Your task to perform on an android device: What's the weather today? Image 0: 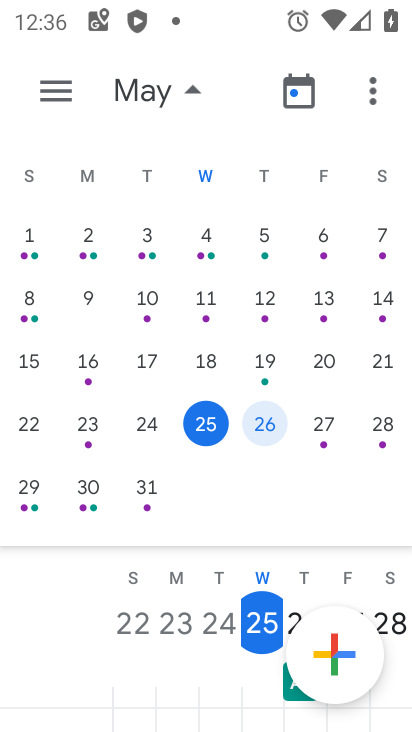
Step 0: press home button
Your task to perform on an android device: What's the weather today? Image 1: 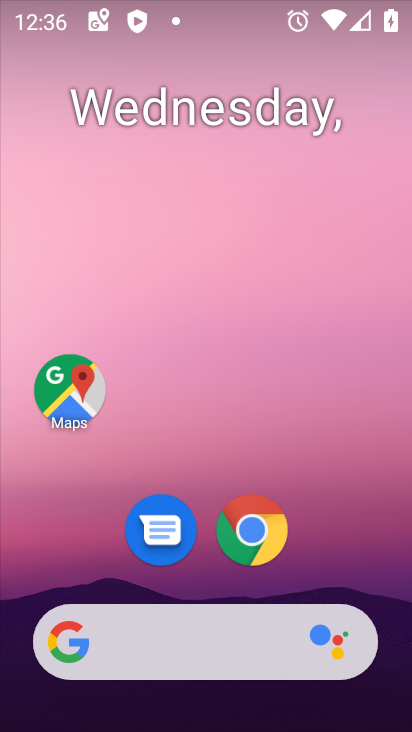
Step 1: click (247, 535)
Your task to perform on an android device: What's the weather today? Image 2: 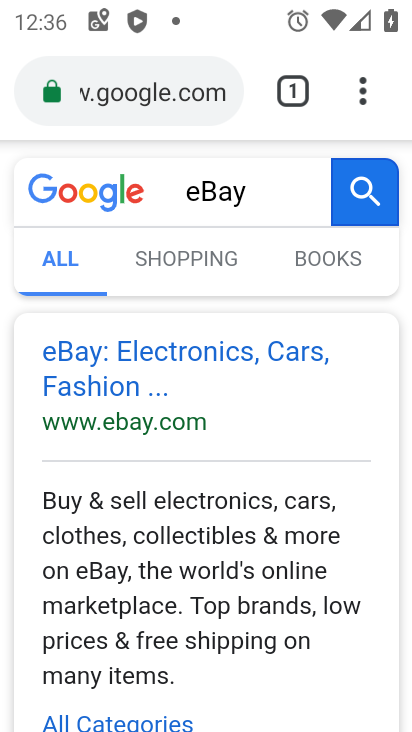
Step 2: click (171, 98)
Your task to perform on an android device: What's the weather today? Image 3: 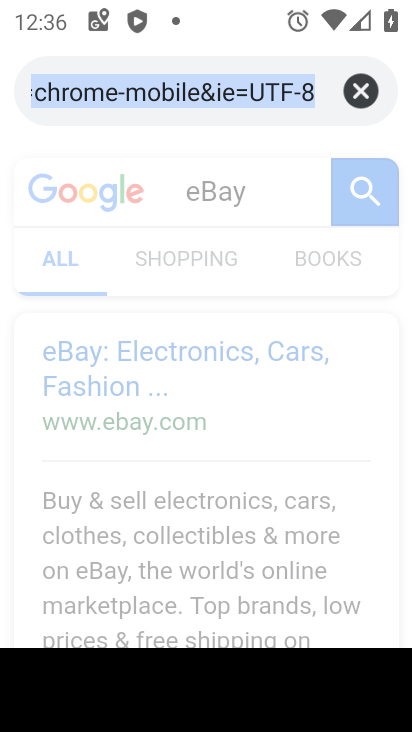
Step 3: type "weather today"
Your task to perform on an android device: What's the weather today? Image 4: 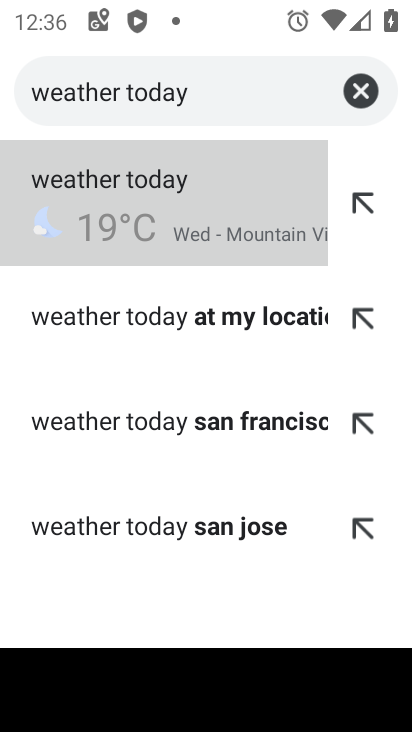
Step 4: click (145, 228)
Your task to perform on an android device: What's the weather today? Image 5: 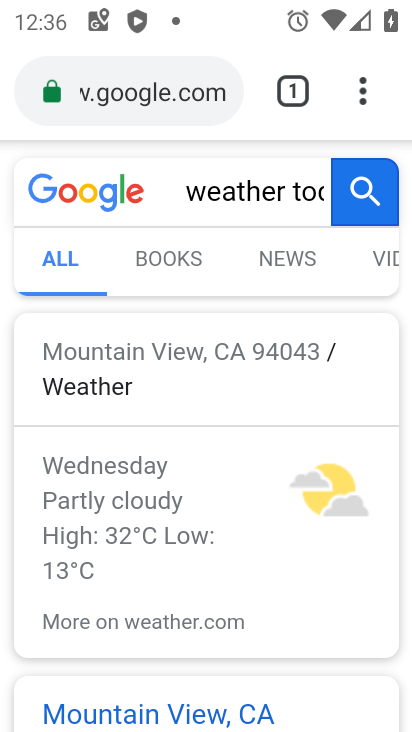
Step 5: task complete